Your task to perform on an android device: See recent photos Image 0: 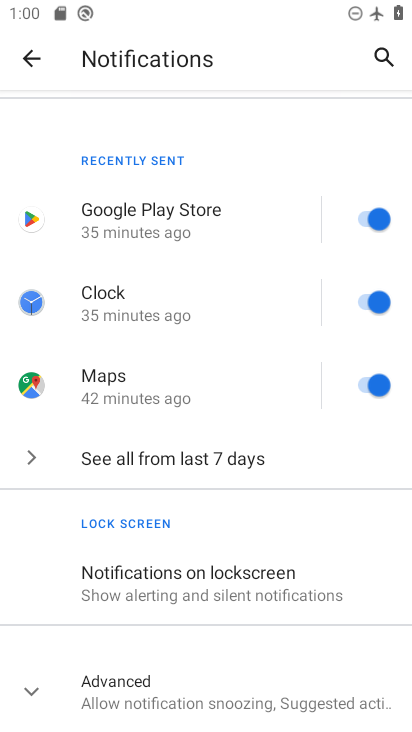
Step 0: press home button
Your task to perform on an android device: See recent photos Image 1: 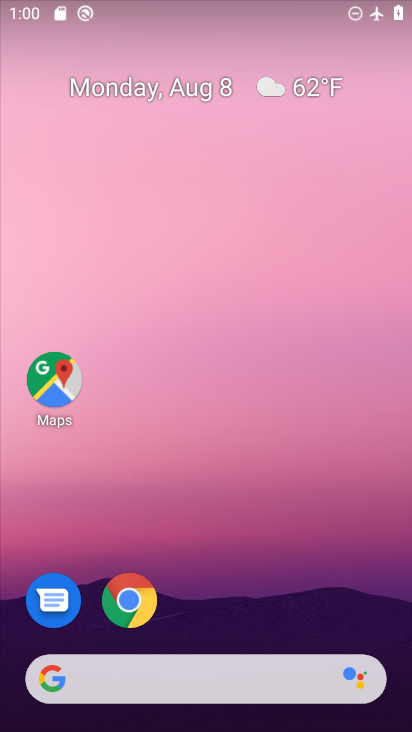
Step 1: drag from (195, 552) to (182, 225)
Your task to perform on an android device: See recent photos Image 2: 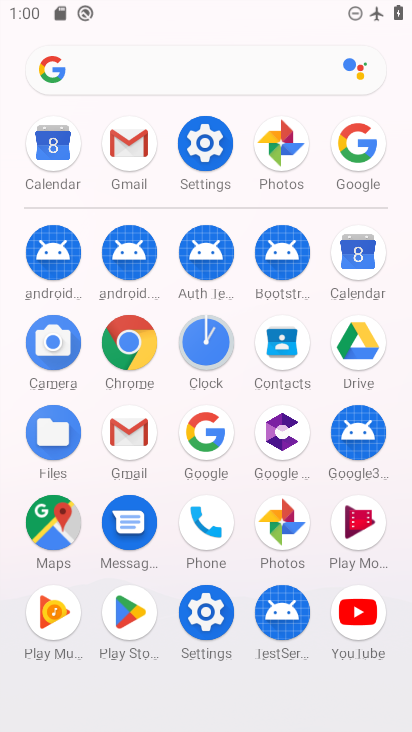
Step 2: click (279, 175)
Your task to perform on an android device: See recent photos Image 3: 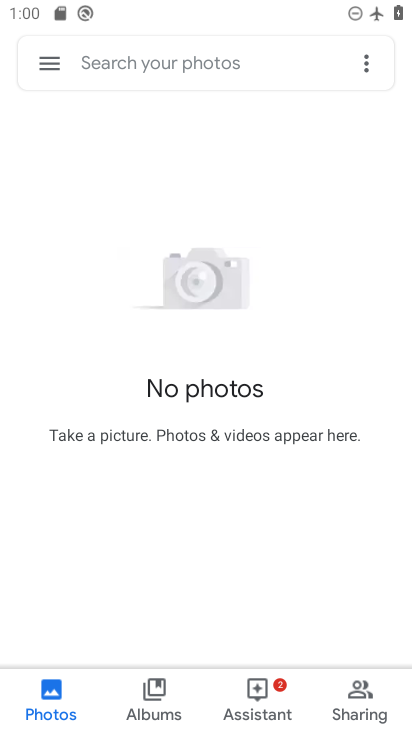
Step 3: task complete